Your task to perform on an android device: see sites visited before in the chrome app Image 0: 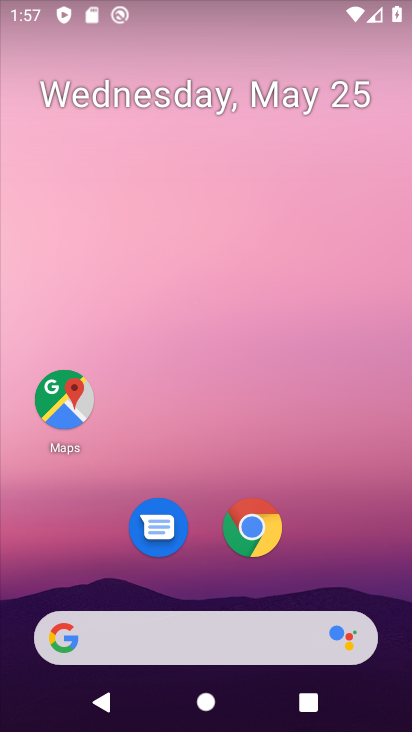
Step 0: click (250, 526)
Your task to perform on an android device: see sites visited before in the chrome app Image 1: 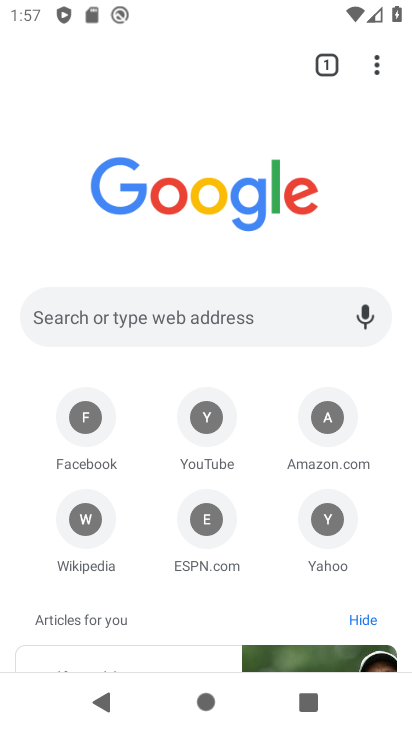
Step 1: click (368, 63)
Your task to perform on an android device: see sites visited before in the chrome app Image 2: 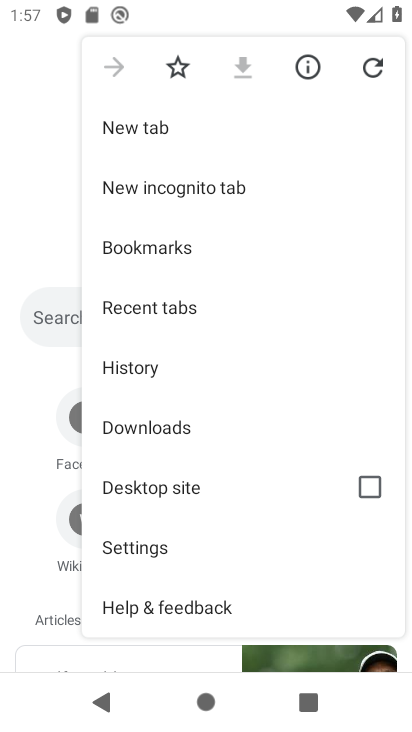
Step 2: click (123, 376)
Your task to perform on an android device: see sites visited before in the chrome app Image 3: 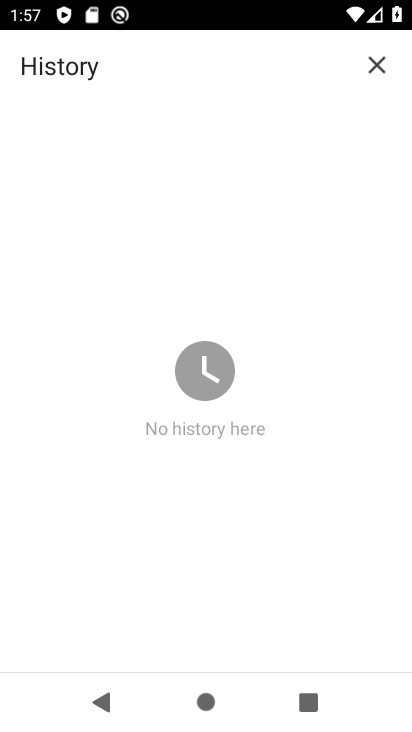
Step 3: task complete